Your task to perform on an android device: delete location history Image 0: 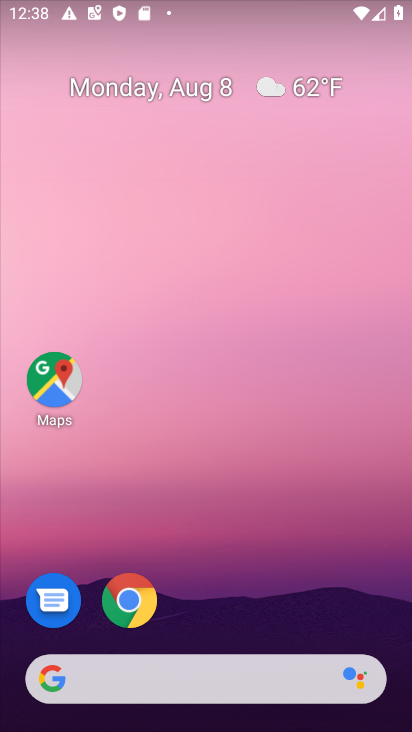
Step 0: drag from (215, 599) to (219, 229)
Your task to perform on an android device: delete location history Image 1: 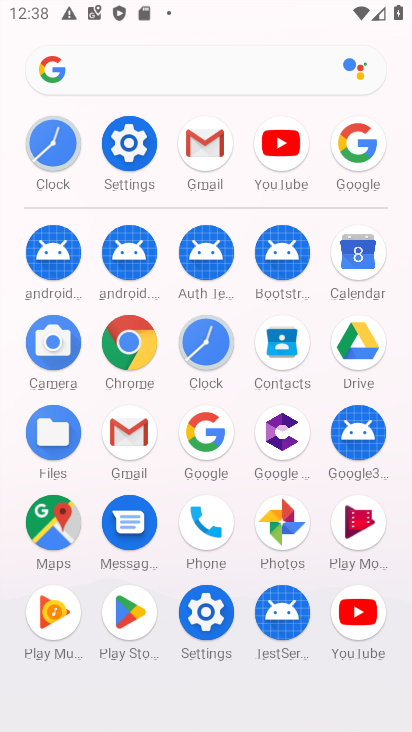
Step 1: click (64, 523)
Your task to perform on an android device: delete location history Image 2: 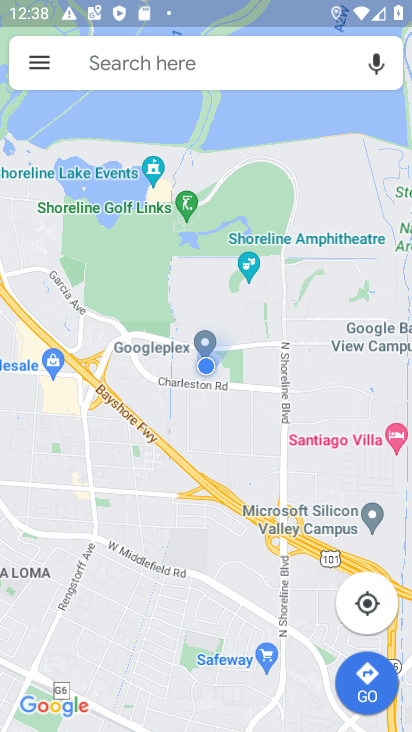
Step 2: click (46, 62)
Your task to perform on an android device: delete location history Image 3: 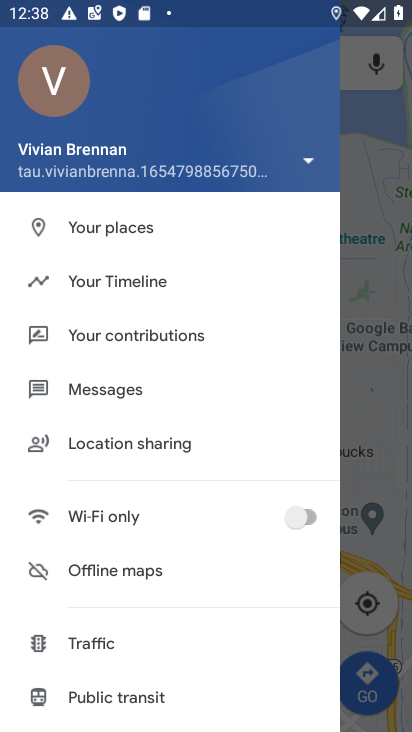
Step 3: click (102, 282)
Your task to perform on an android device: delete location history Image 4: 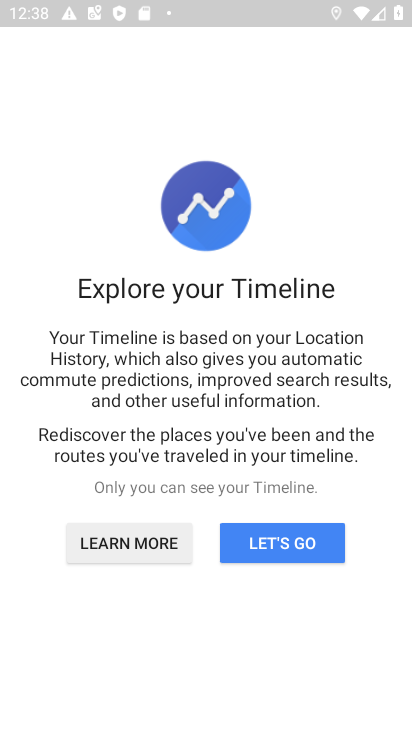
Step 4: click (259, 548)
Your task to perform on an android device: delete location history Image 5: 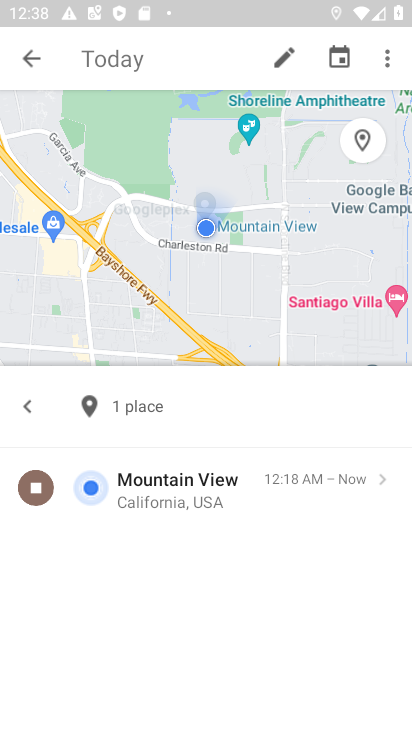
Step 5: click (390, 64)
Your task to perform on an android device: delete location history Image 6: 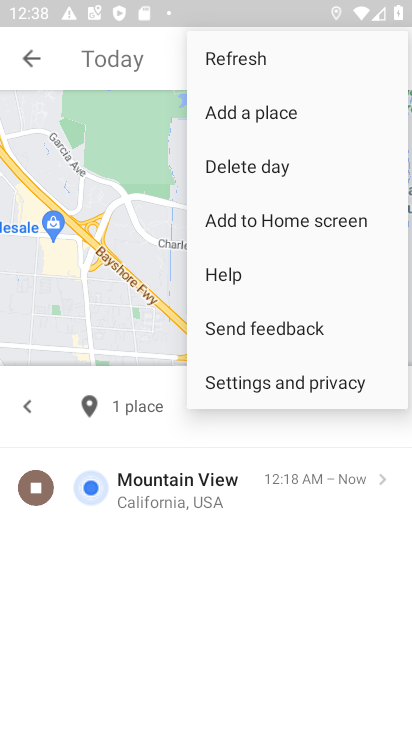
Step 6: click (267, 380)
Your task to perform on an android device: delete location history Image 7: 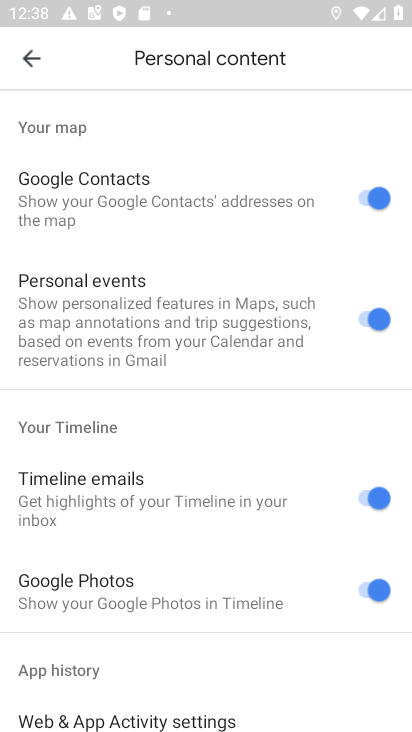
Step 7: drag from (218, 616) to (218, 184)
Your task to perform on an android device: delete location history Image 8: 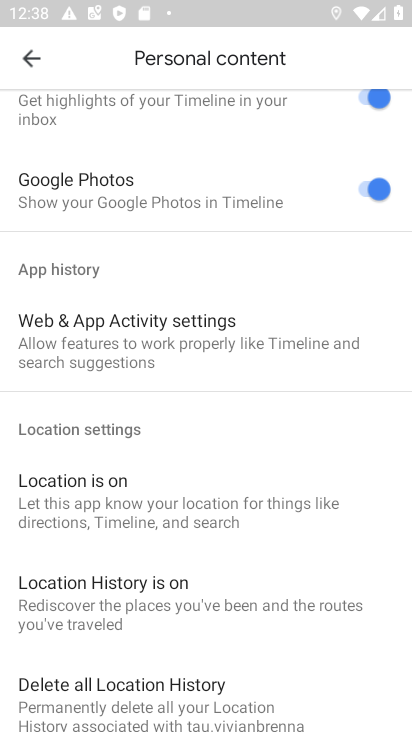
Step 8: drag from (243, 585) to (243, 320)
Your task to perform on an android device: delete location history Image 9: 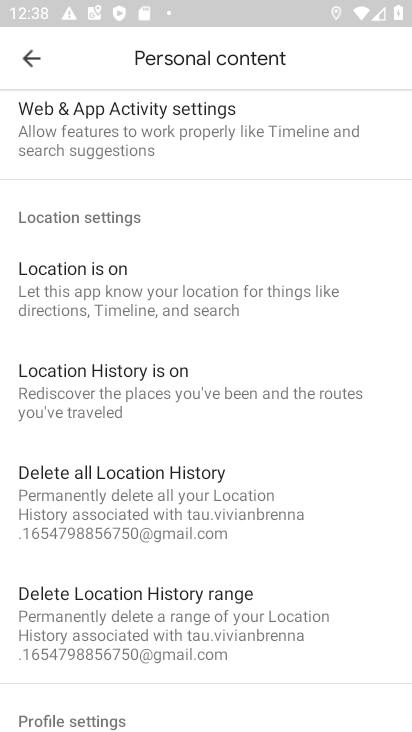
Step 9: click (141, 486)
Your task to perform on an android device: delete location history Image 10: 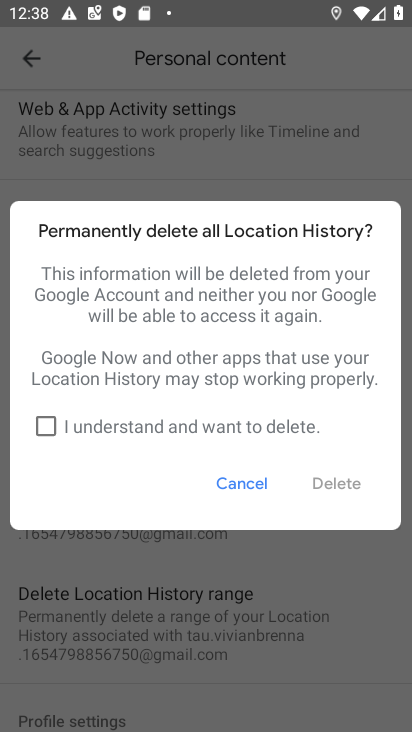
Step 10: click (91, 434)
Your task to perform on an android device: delete location history Image 11: 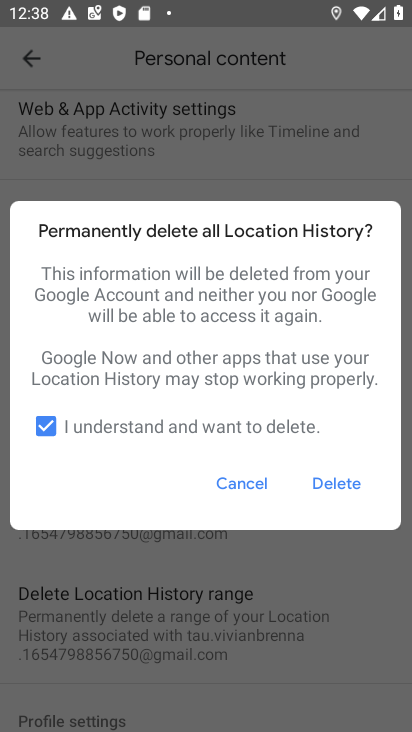
Step 11: click (343, 488)
Your task to perform on an android device: delete location history Image 12: 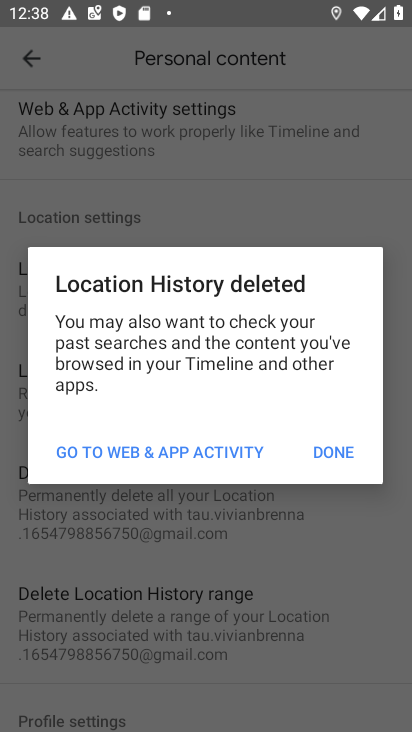
Step 12: click (322, 445)
Your task to perform on an android device: delete location history Image 13: 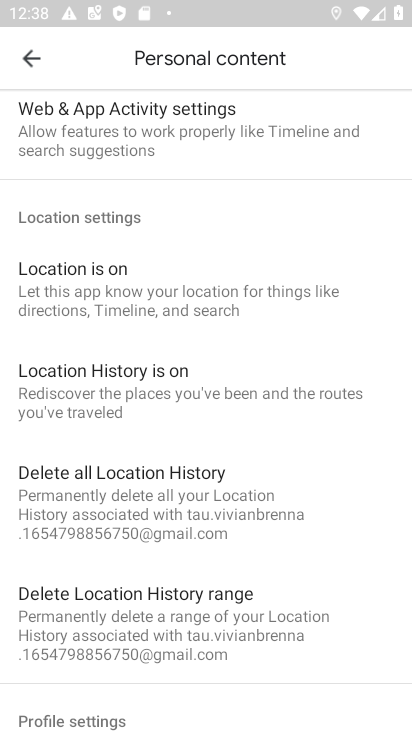
Step 13: task complete